Your task to perform on an android device: turn on airplane mode Image 0: 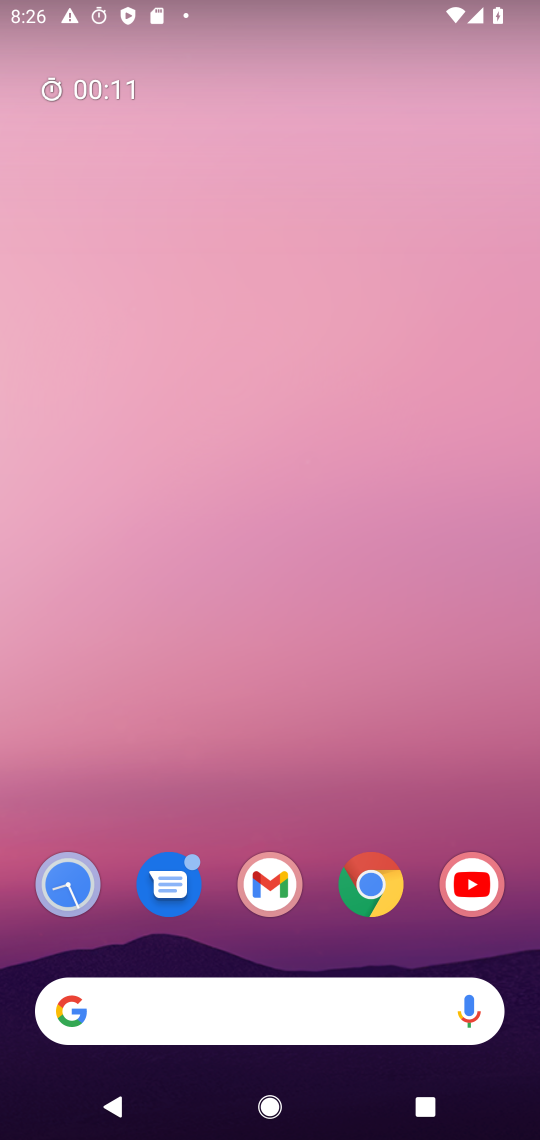
Step 0: drag from (372, 763) to (369, 277)
Your task to perform on an android device: turn on airplane mode Image 1: 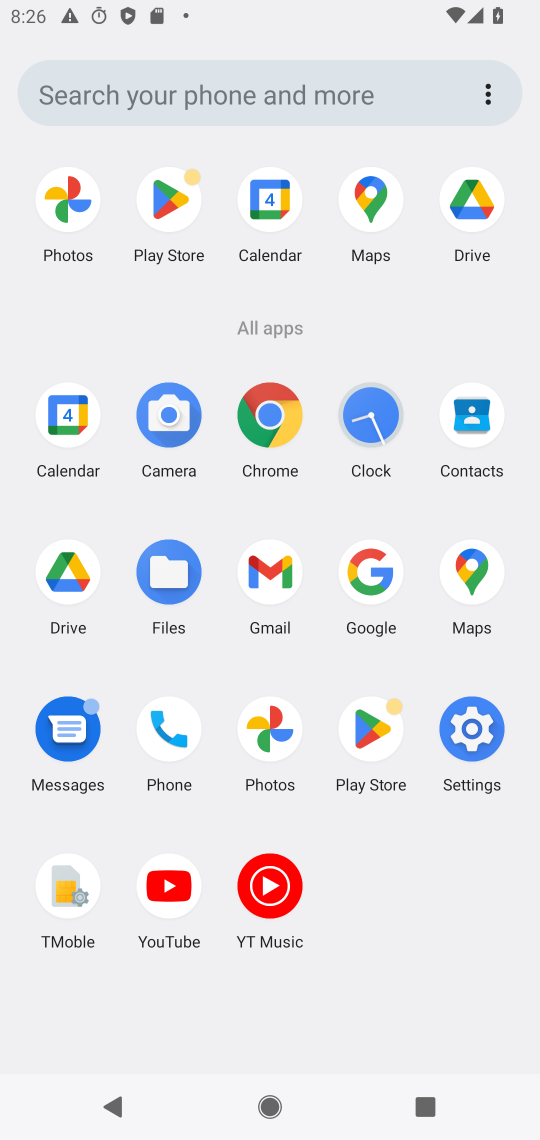
Step 1: click (477, 748)
Your task to perform on an android device: turn on airplane mode Image 2: 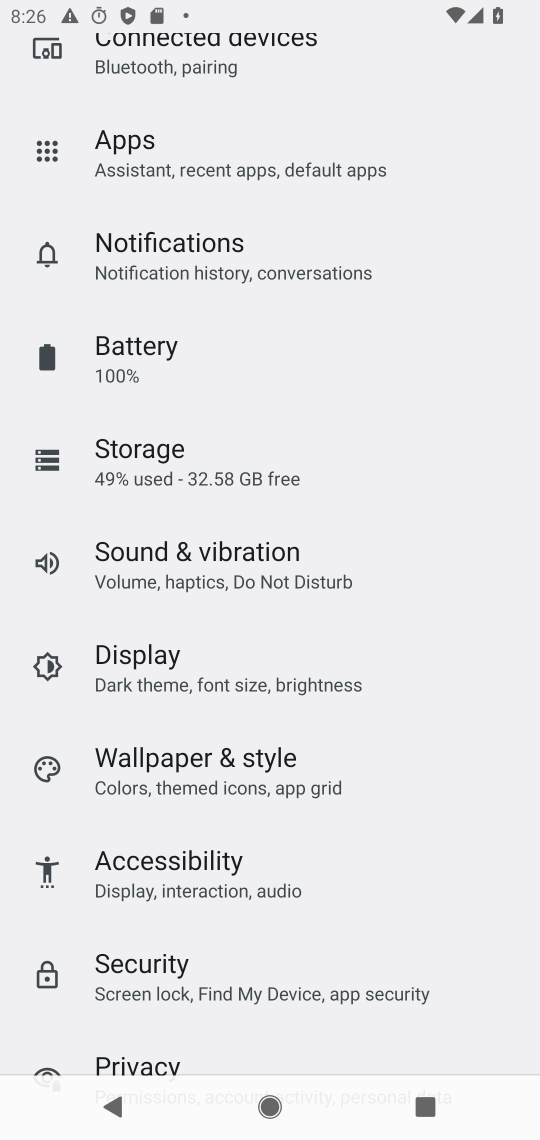
Step 2: drag from (329, 106) to (312, 808)
Your task to perform on an android device: turn on airplane mode Image 3: 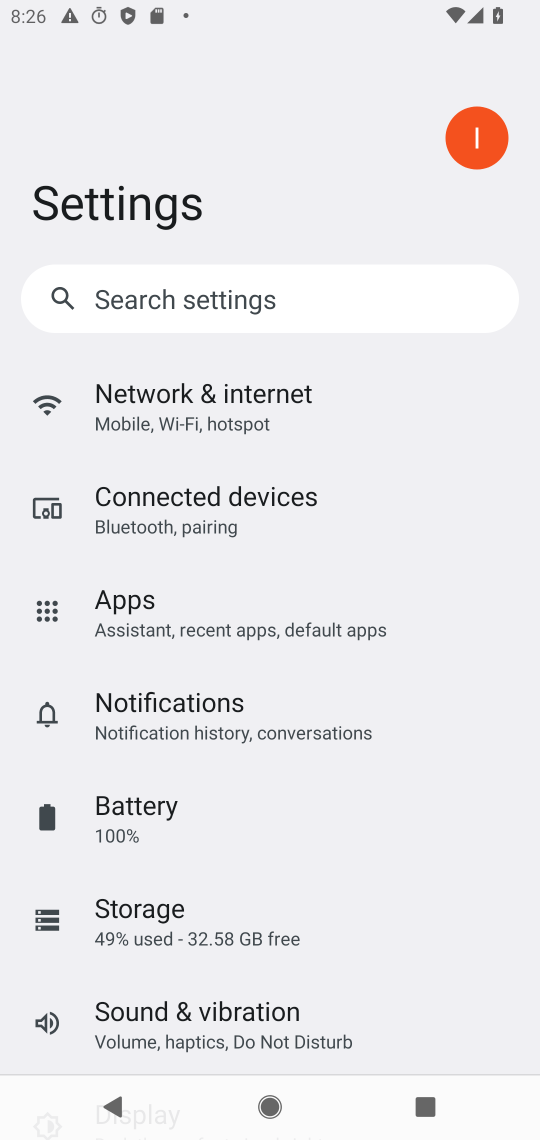
Step 3: click (208, 418)
Your task to perform on an android device: turn on airplane mode Image 4: 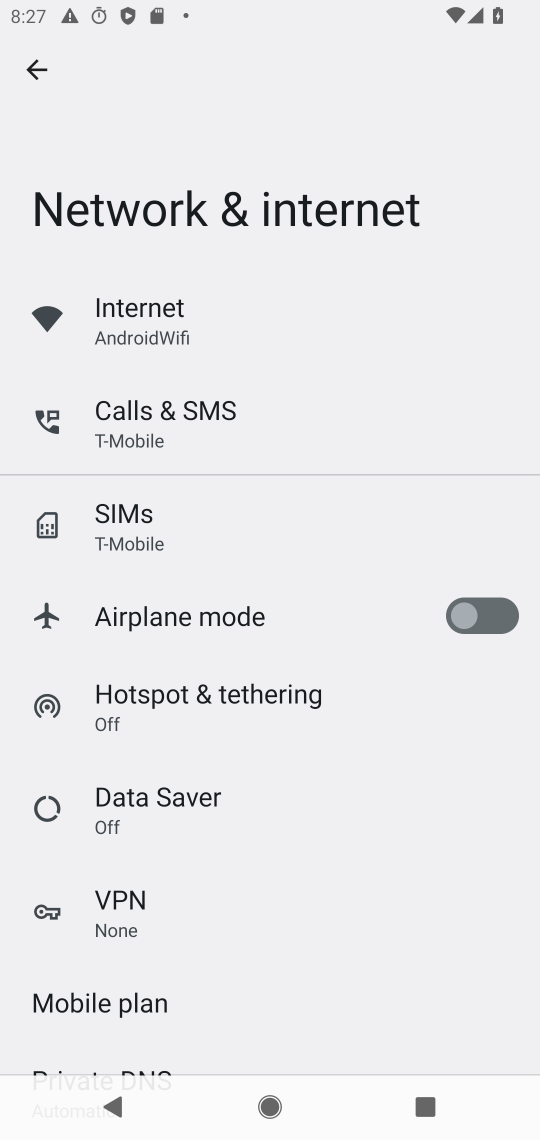
Step 4: click (468, 620)
Your task to perform on an android device: turn on airplane mode Image 5: 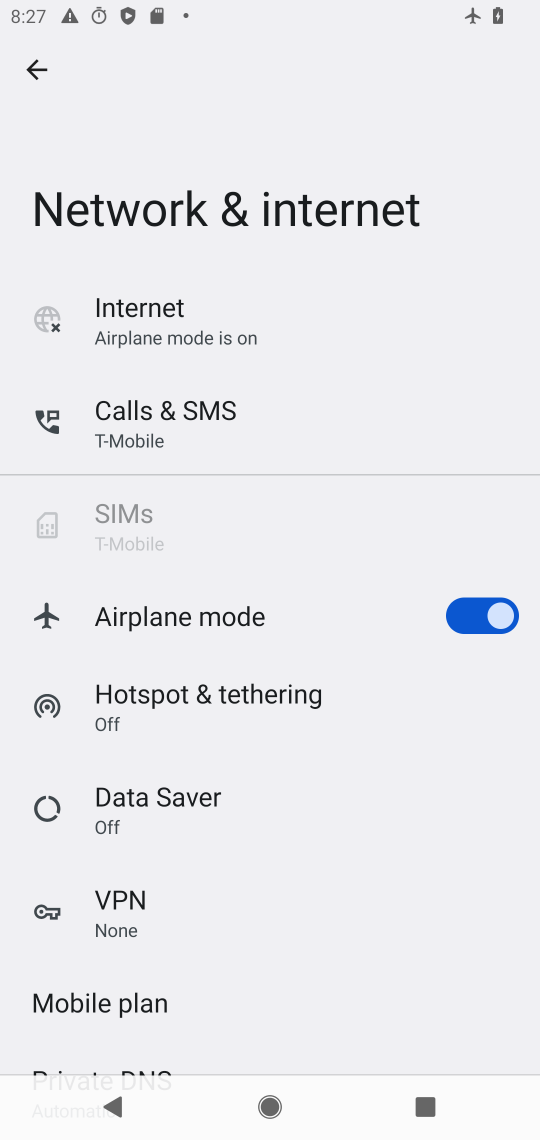
Step 5: task complete